Your task to perform on an android device: Open calendar and show me the fourth week of next month Image 0: 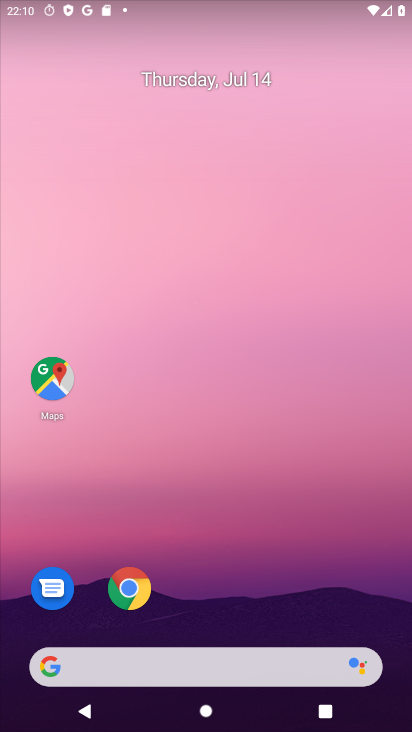
Step 0: drag from (244, 615) to (286, 112)
Your task to perform on an android device: Open calendar and show me the fourth week of next month Image 1: 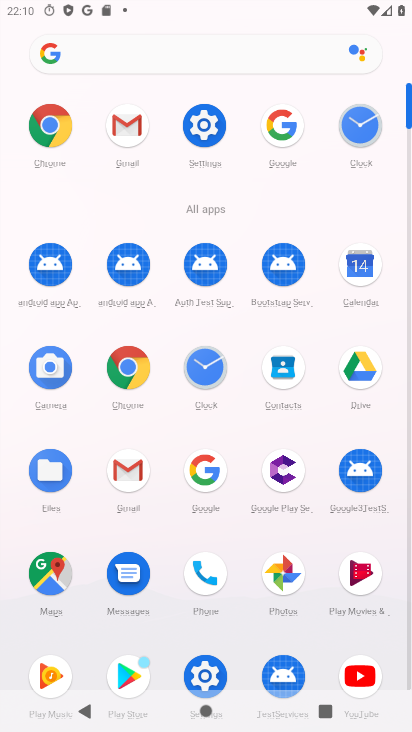
Step 1: click (354, 262)
Your task to perform on an android device: Open calendar and show me the fourth week of next month Image 2: 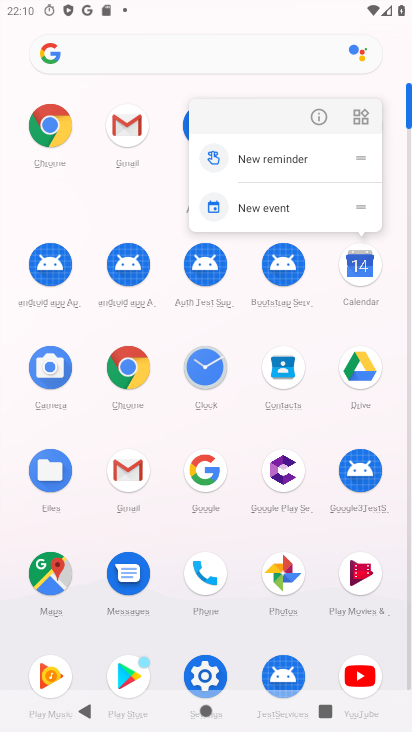
Step 2: click (352, 266)
Your task to perform on an android device: Open calendar and show me the fourth week of next month Image 3: 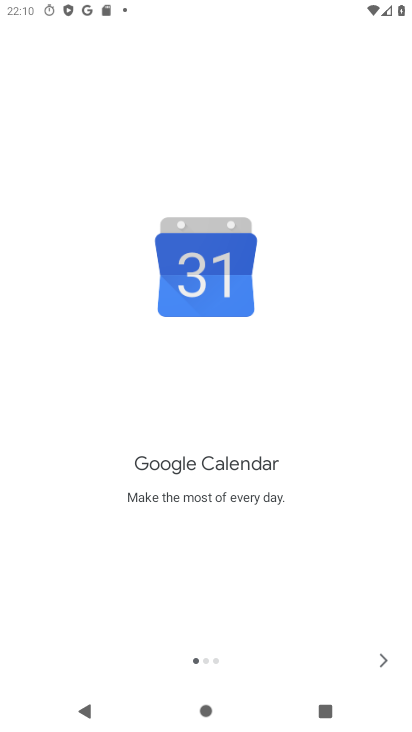
Step 3: click (382, 664)
Your task to perform on an android device: Open calendar and show me the fourth week of next month Image 4: 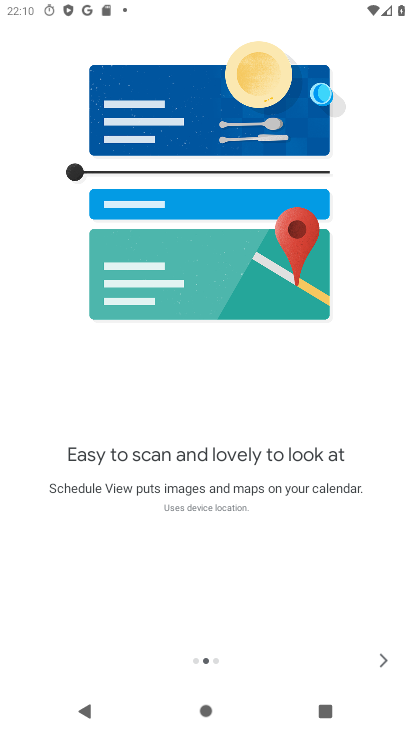
Step 4: click (383, 661)
Your task to perform on an android device: Open calendar and show me the fourth week of next month Image 5: 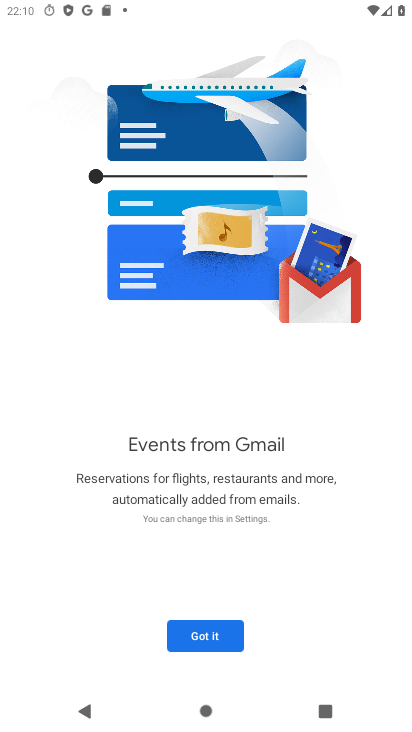
Step 5: click (211, 630)
Your task to perform on an android device: Open calendar and show me the fourth week of next month Image 6: 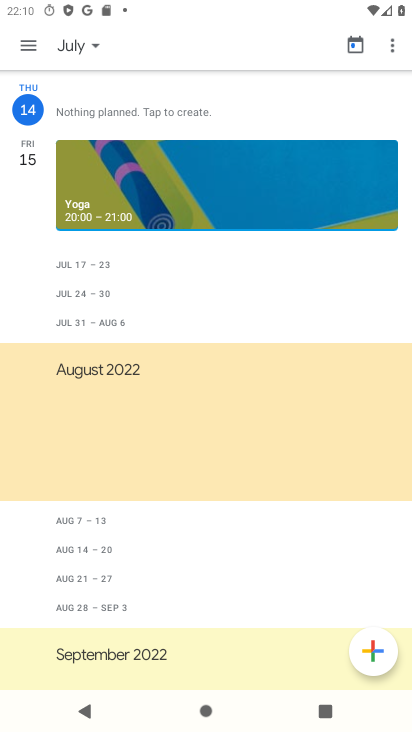
Step 6: click (85, 52)
Your task to perform on an android device: Open calendar and show me the fourth week of next month Image 7: 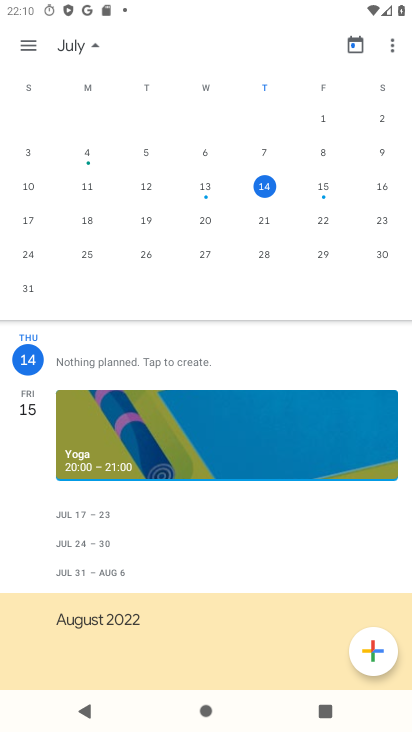
Step 7: drag from (371, 304) to (6, 250)
Your task to perform on an android device: Open calendar and show me the fourth week of next month Image 8: 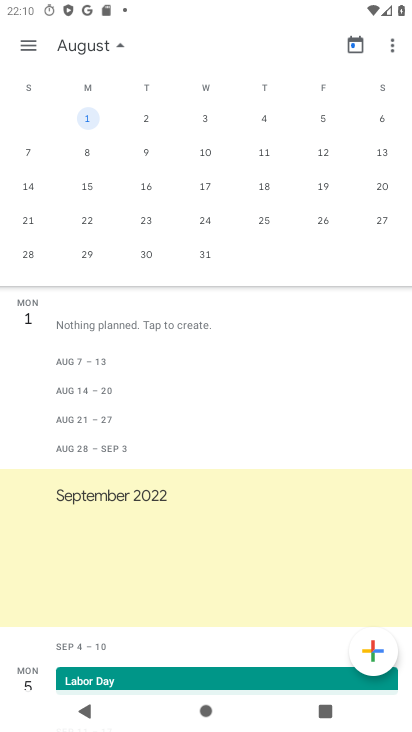
Step 8: click (268, 225)
Your task to perform on an android device: Open calendar and show me the fourth week of next month Image 9: 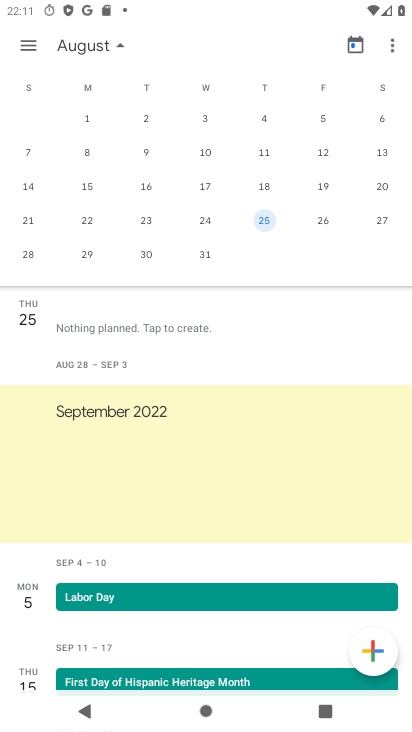
Step 9: task complete